Your task to perform on an android device: set default search engine in the chrome app Image 0: 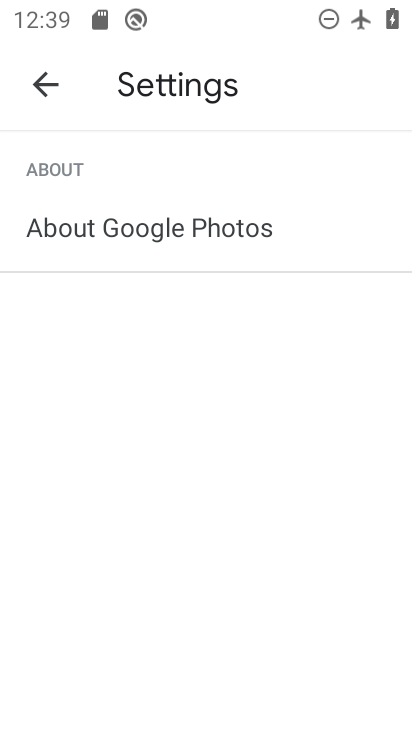
Step 0: press home button
Your task to perform on an android device: set default search engine in the chrome app Image 1: 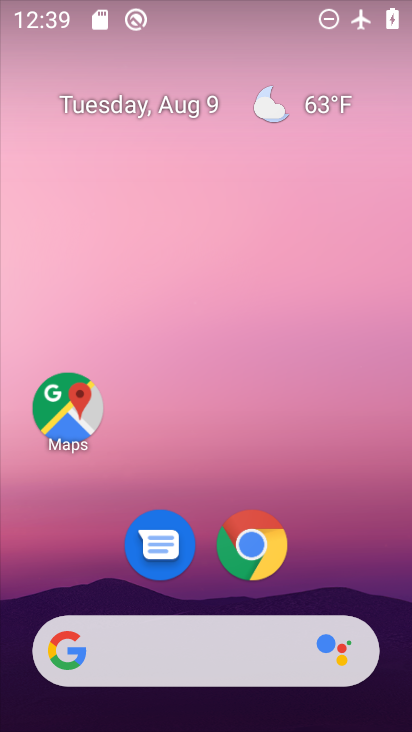
Step 1: click (252, 547)
Your task to perform on an android device: set default search engine in the chrome app Image 2: 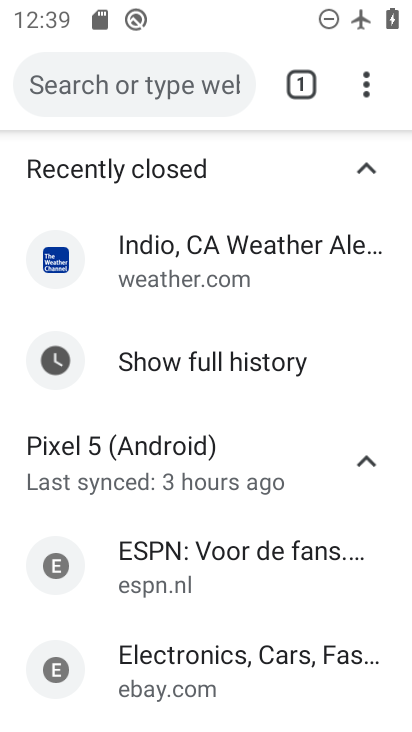
Step 2: click (370, 82)
Your task to perform on an android device: set default search engine in the chrome app Image 3: 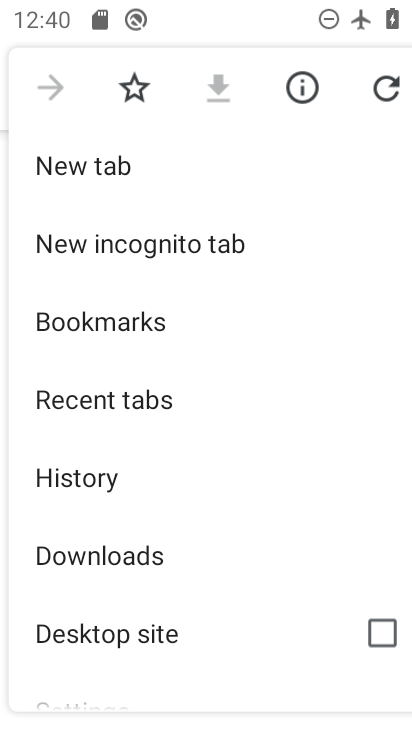
Step 3: drag from (111, 528) to (174, 414)
Your task to perform on an android device: set default search engine in the chrome app Image 4: 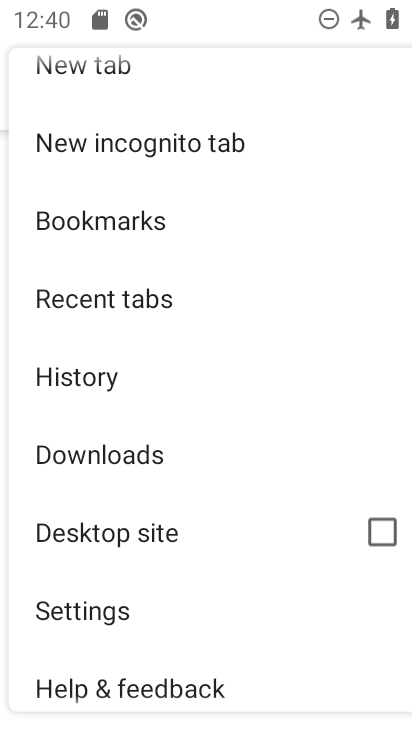
Step 4: click (84, 620)
Your task to perform on an android device: set default search engine in the chrome app Image 5: 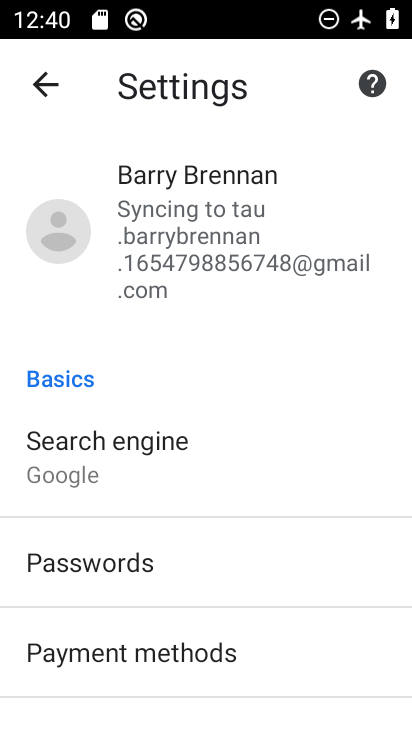
Step 5: click (177, 438)
Your task to perform on an android device: set default search engine in the chrome app Image 6: 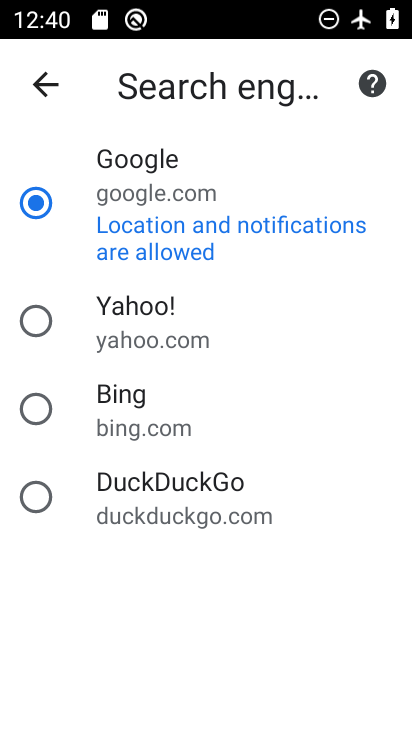
Step 6: click (34, 202)
Your task to perform on an android device: set default search engine in the chrome app Image 7: 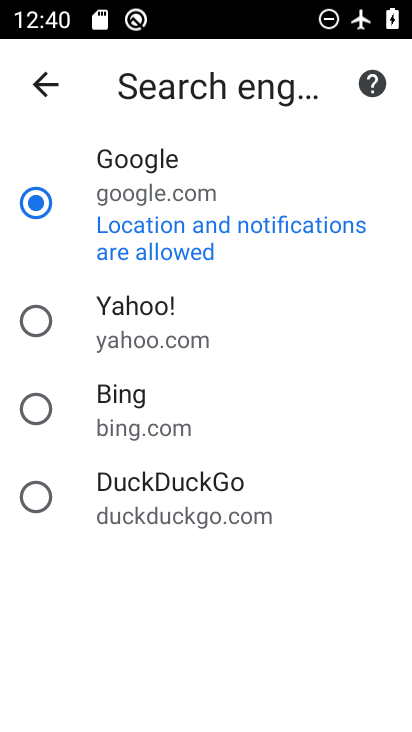
Step 7: task complete